Your task to perform on an android device: Search for vegetarian restaurants on Maps Image 0: 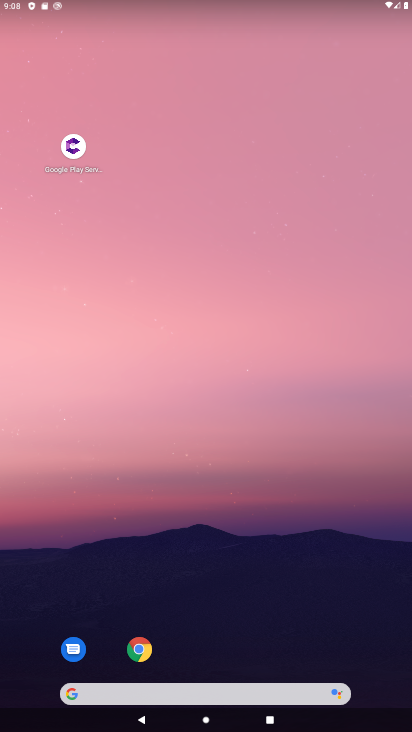
Step 0: click (125, 679)
Your task to perform on an android device: Search for vegetarian restaurants on Maps Image 1: 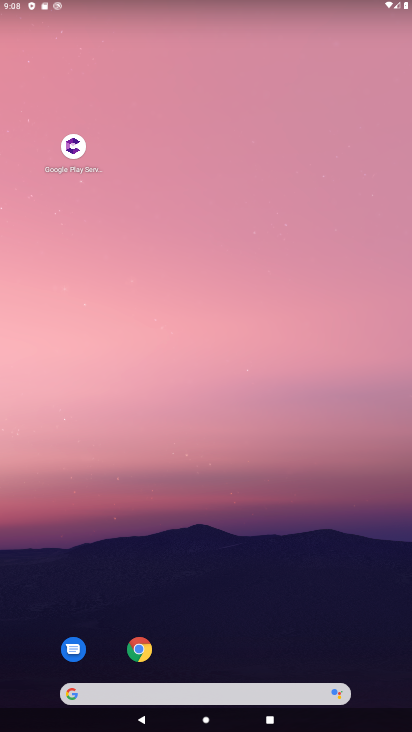
Step 1: click (119, 694)
Your task to perform on an android device: Search for vegetarian restaurants on Maps Image 2: 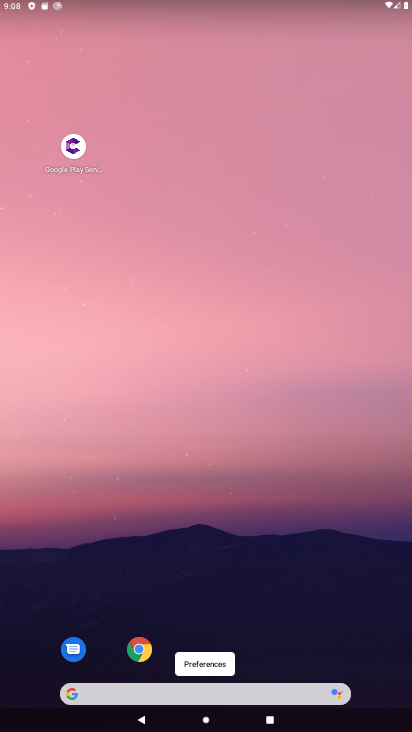
Step 2: click (114, 690)
Your task to perform on an android device: Search for vegetarian restaurants on Maps Image 3: 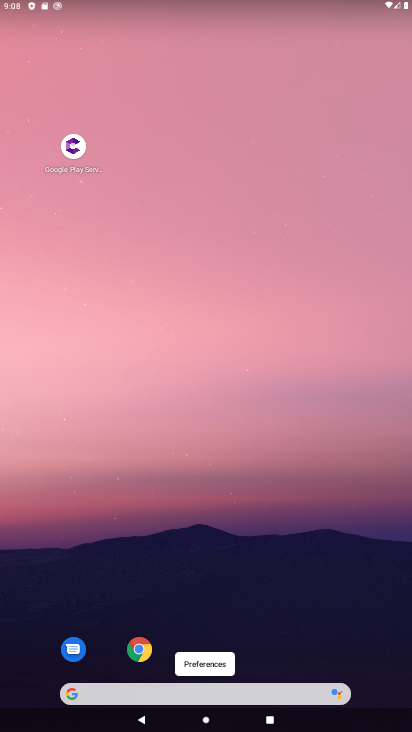
Step 3: click (125, 701)
Your task to perform on an android device: Search for vegetarian restaurants on Maps Image 4: 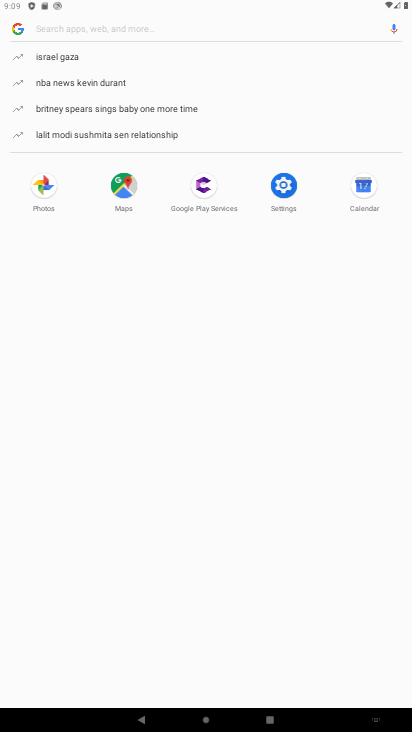
Step 4: type "vegetarian restaurants"
Your task to perform on an android device: Search for vegetarian restaurants on Maps Image 5: 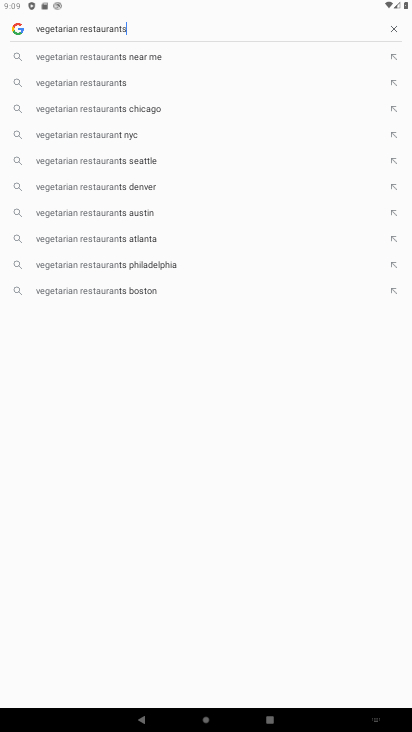
Step 5: type ""
Your task to perform on an android device: Search for vegetarian restaurants on Maps Image 6: 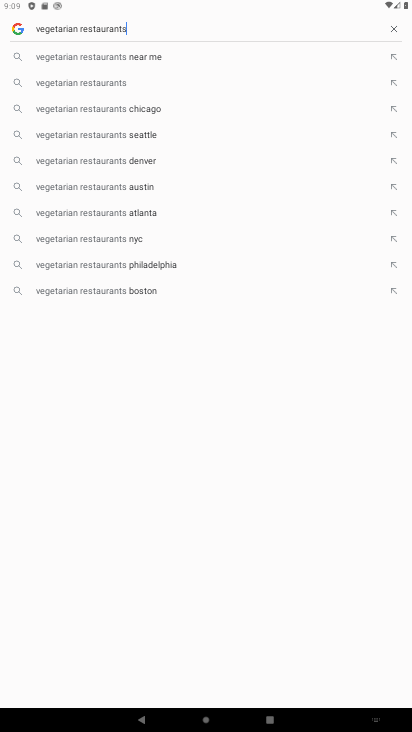
Step 6: click (96, 77)
Your task to perform on an android device: Search for vegetarian restaurants on Maps Image 7: 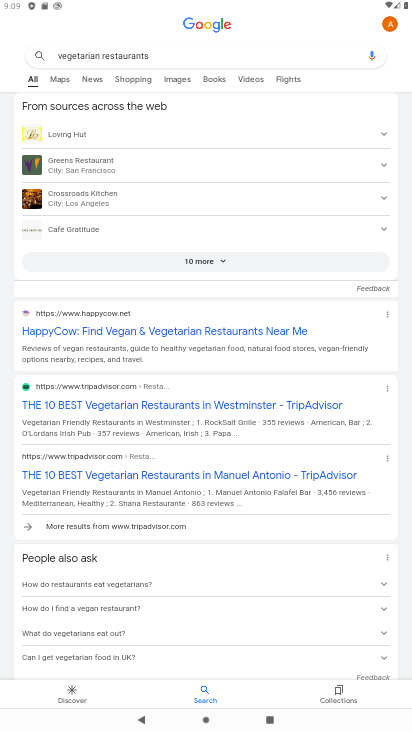
Step 7: task complete